Your task to perform on an android device: set the timer Image 0: 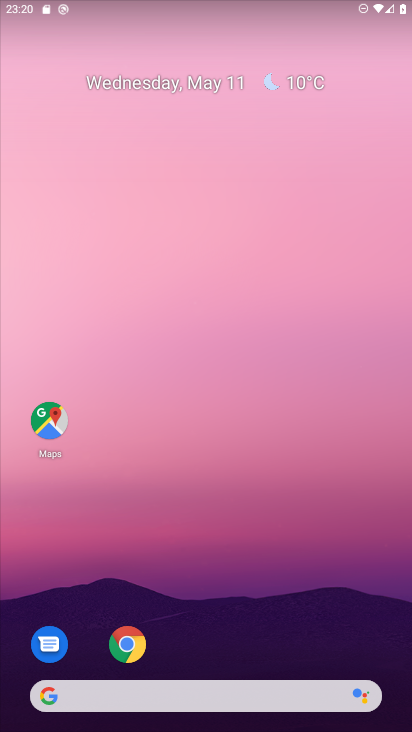
Step 0: drag from (406, 633) to (353, 32)
Your task to perform on an android device: set the timer Image 1: 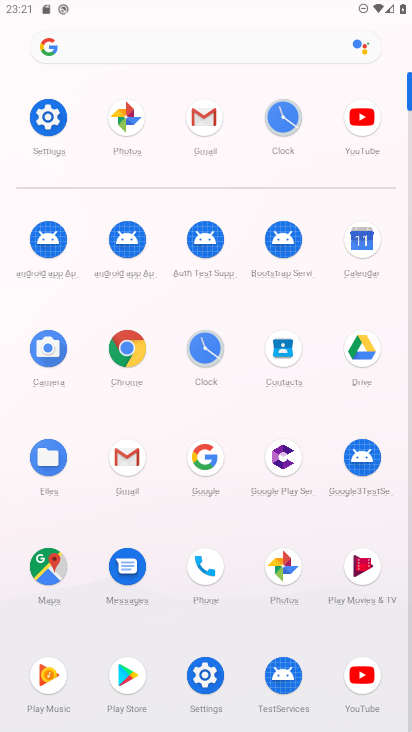
Step 1: click (286, 122)
Your task to perform on an android device: set the timer Image 2: 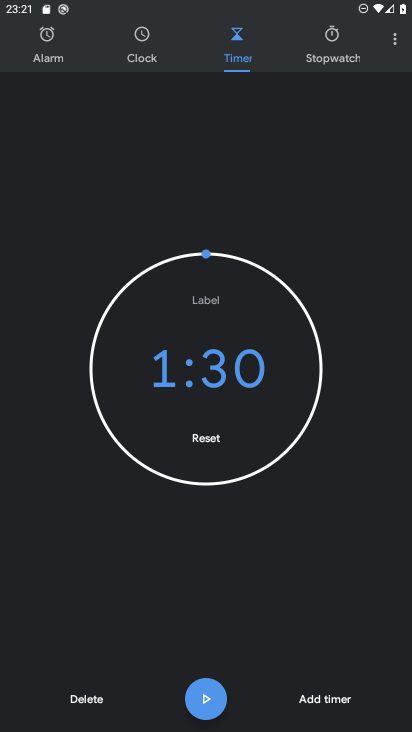
Step 2: click (307, 701)
Your task to perform on an android device: set the timer Image 3: 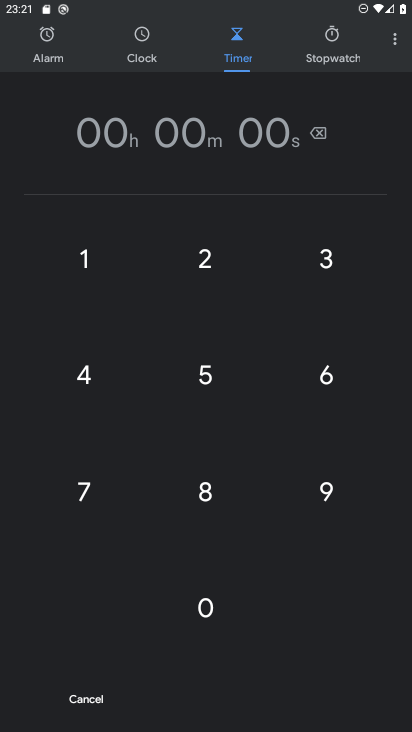
Step 3: click (78, 253)
Your task to perform on an android device: set the timer Image 4: 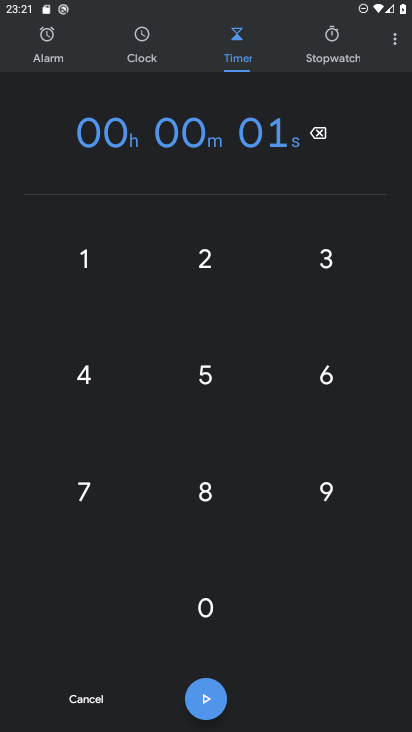
Step 4: click (206, 610)
Your task to perform on an android device: set the timer Image 5: 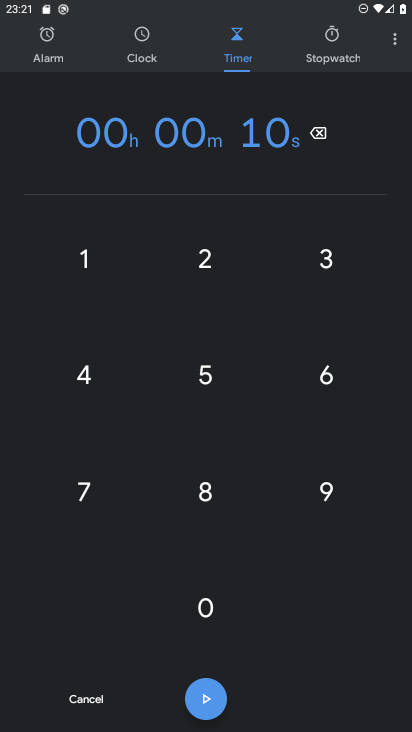
Step 5: click (93, 268)
Your task to perform on an android device: set the timer Image 6: 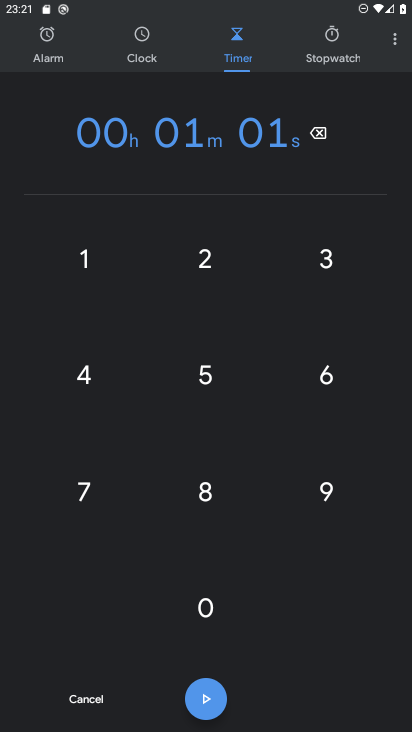
Step 6: click (209, 604)
Your task to perform on an android device: set the timer Image 7: 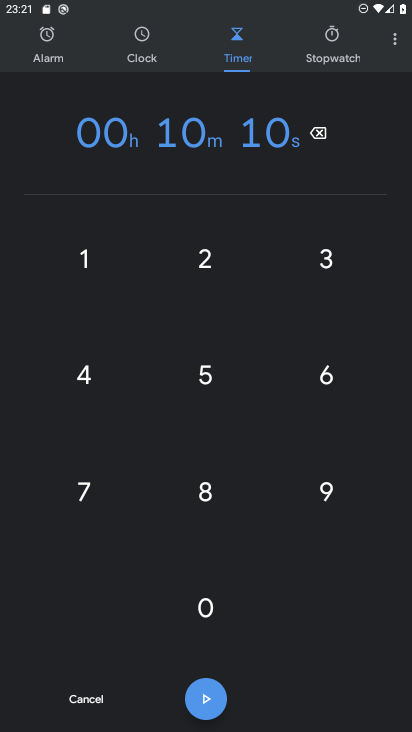
Step 7: click (203, 693)
Your task to perform on an android device: set the timer Image 8: 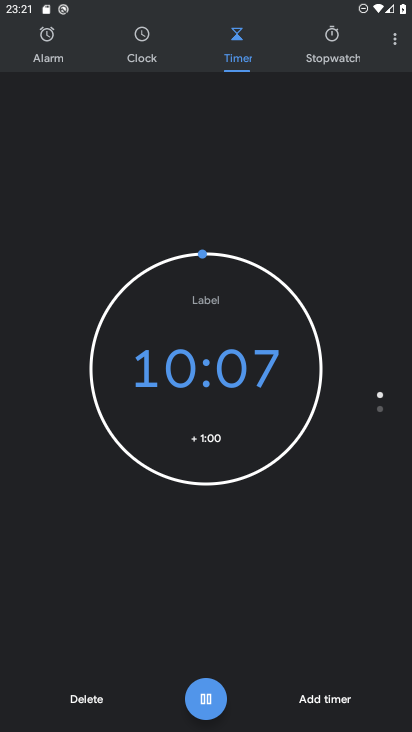
Step 8: task complete